Your task to perform on an android device: check android version Image 0: 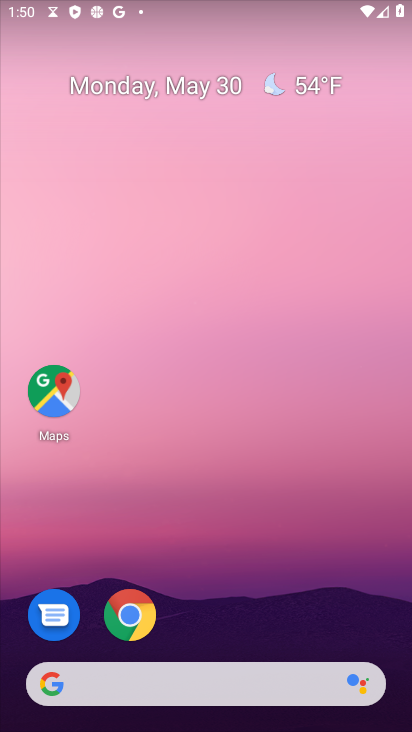
Step 0: drag from (349, 561) to (345, 29)
Your task to perform on an android device: check android version Image 1: 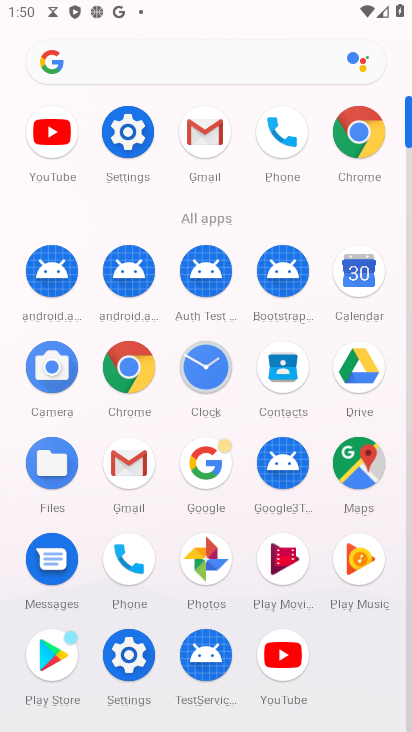
Step 1: click (118, 116)
Your task to perform on an android device: check android version Image 2: 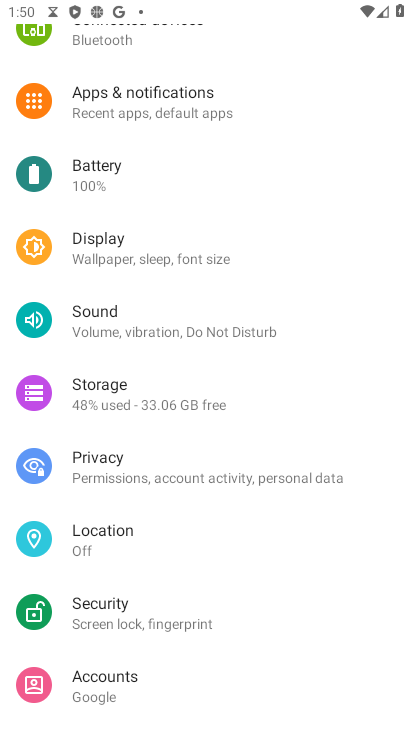
Step 2: drag from (139, 653) to (172, 206)
Your task to perform on an android device: check android version Image 3: 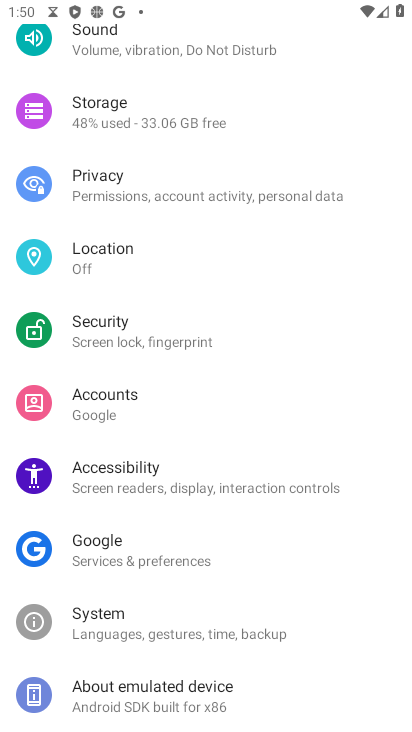
Step 3: drag from (142, 646) to (139, 305)
Your task to perform on an android device: check android version Image 4: 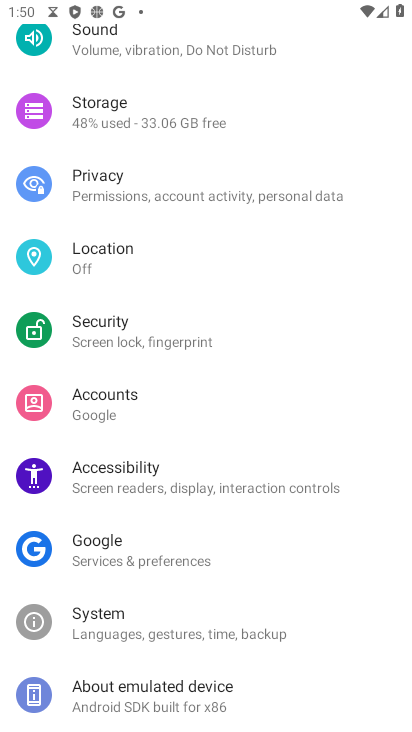
Step 4: click (129, 701)
Your task to perform on an android device: check android version Image 5: 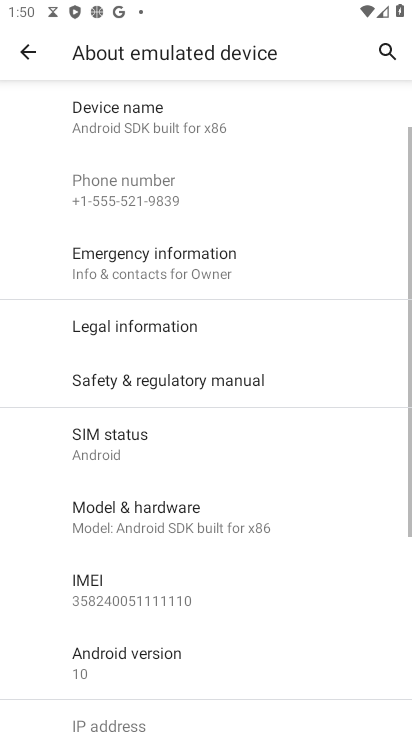
Step 5: click (125, 661)
Your task to perform on an android device: check android version Image 6: 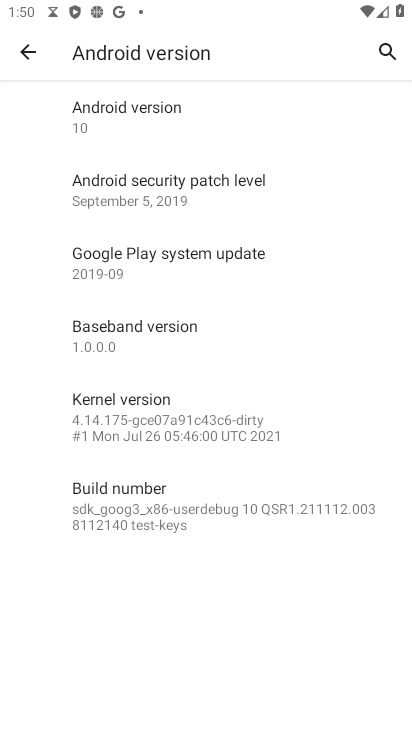
Step 6: task complete